Your task to perform on an android device: turn on priority inbox in the gmail app Image 0: 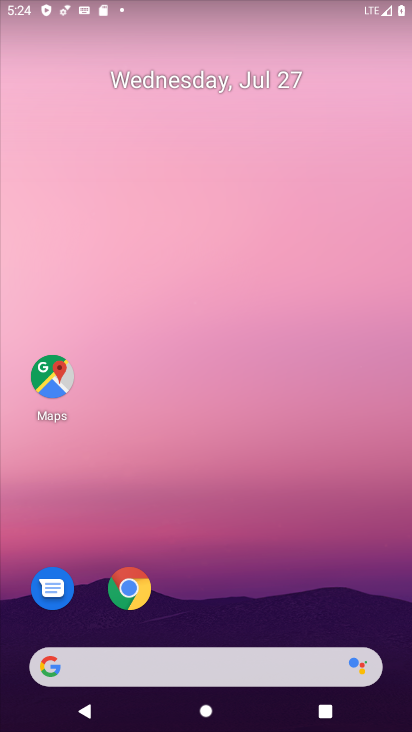
Step 0: drag from (160, 673) to (226, 36)
Your task to perform on an android device: turn on priority inbox in the gmail app Image 1: 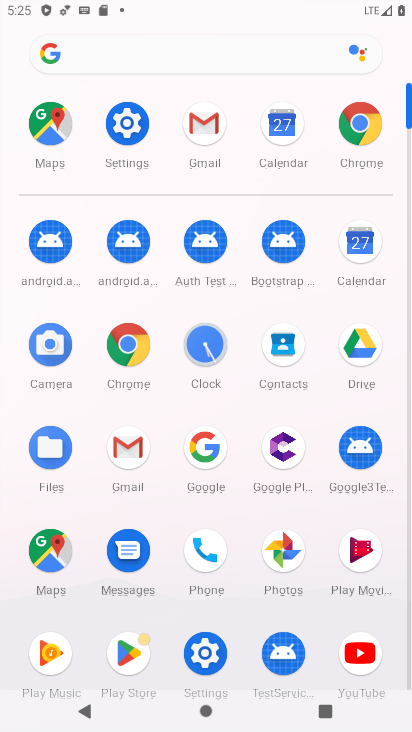
Step 1: click (124, 443)
Your task to perform on an android device: turn on priority inbox in the gmail app Image 2: 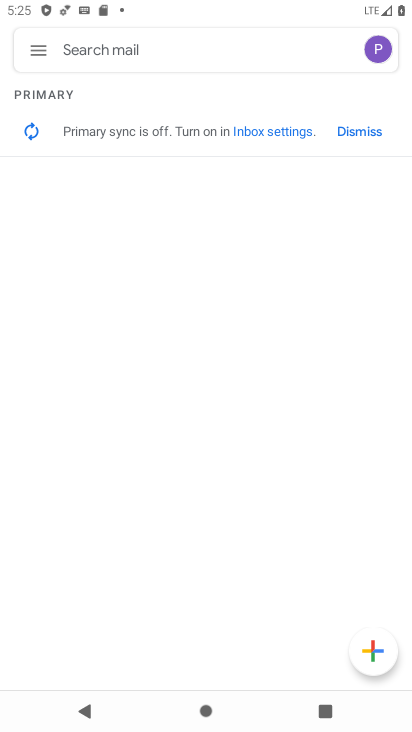
Step 2: click (37, 52)
Your task to perform on an android device: turn on priority inbox in the gmail app Image 3: 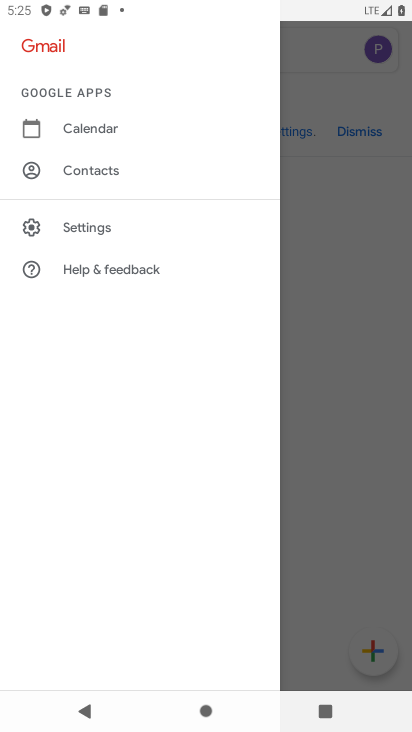
Step 3: click (111, 220)
Your task to perform on an android device: turn on priority inbox in the gmail app Image 4: 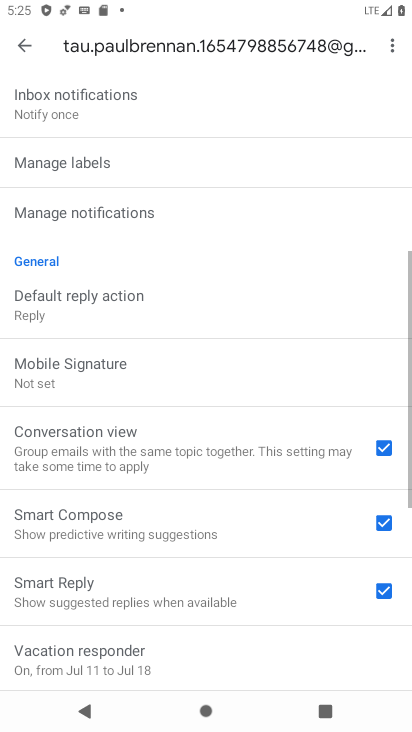
Step 4: drag from (89, 211) to (162, 662)
Your task to perform on an android device: turn on priority inbox in the gmail app Image 5: 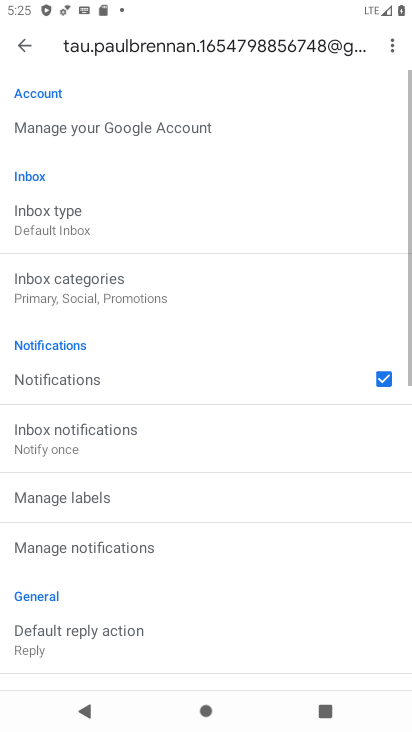
Step 5: click (76, 221)
Your task to perform on an android device: turn on priority inbox in the gmail app Image 6: 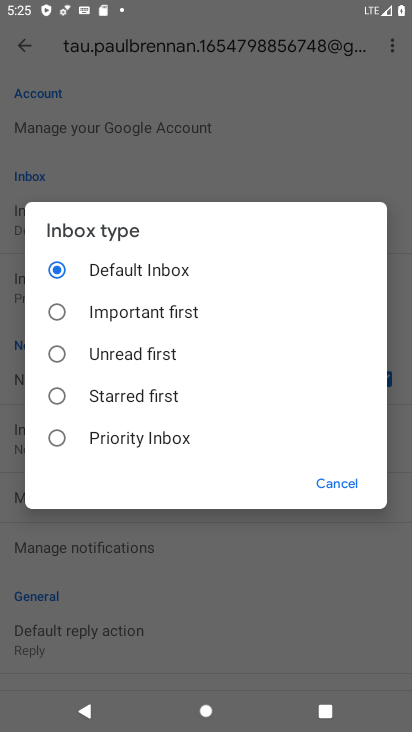
Step 6: click (50, 443)
Your task to perform on an android device: turn on priority inbox in the gmail app Image 7: 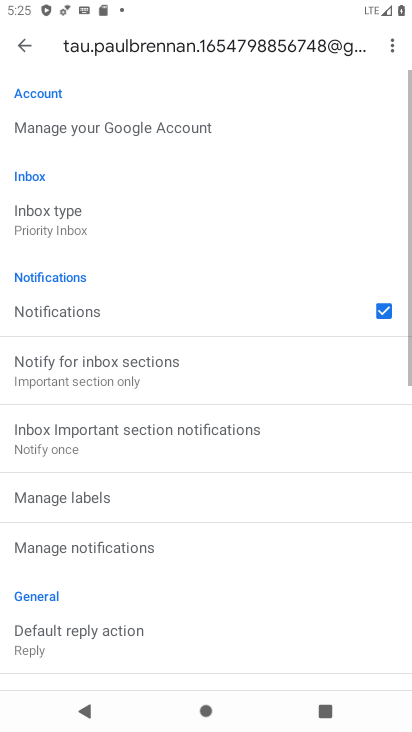
Step 7: task complete